Your task to perform on an android device: Go to network settings Image 0: 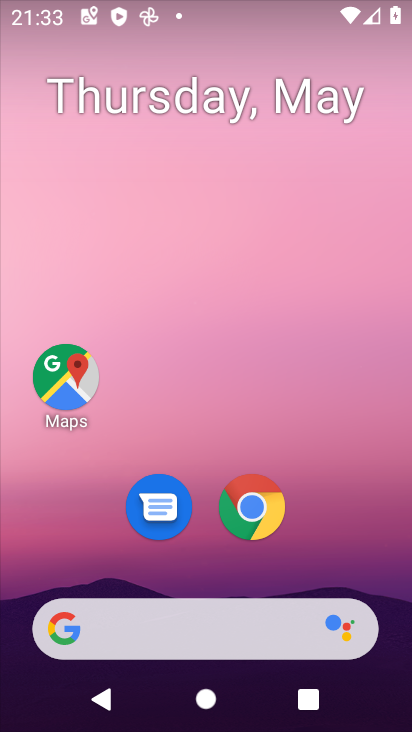
Step 0: drag from (270, 642) to (213, 312)
Your task to perform on an android device: Go to network settings Image 1: 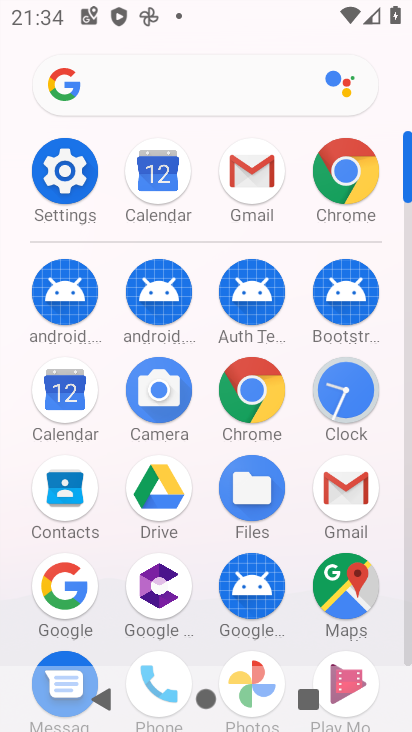
Step 1: click (52, 179)
Your task to perform on an android device: Go to network settings Image 2: 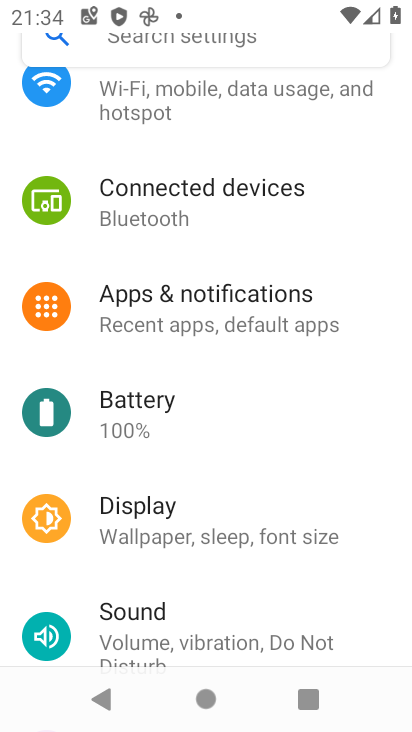
Step 2: click (172, 101)
Your task to perform on an android device: Go to network settings Image 3: 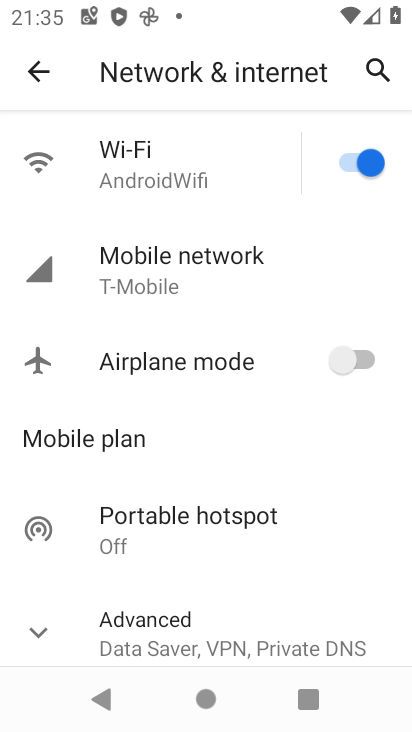
Step 3: click (211, 256)
Your task to perform on an android device: Go to network settings Image 4: 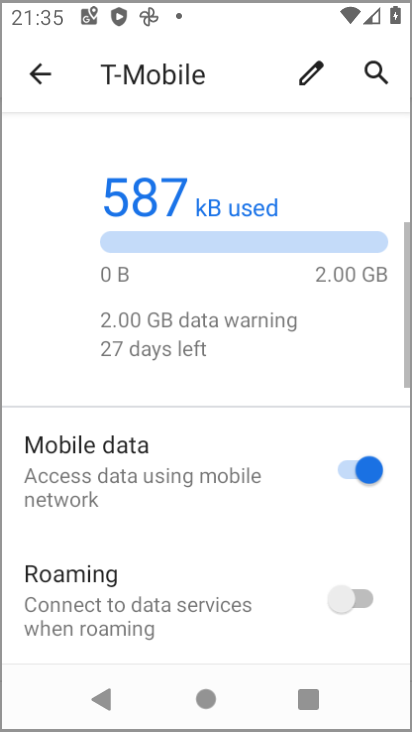
Step 4: task complete